Your task to perform on an android device: When is my next meeting? Image 0: 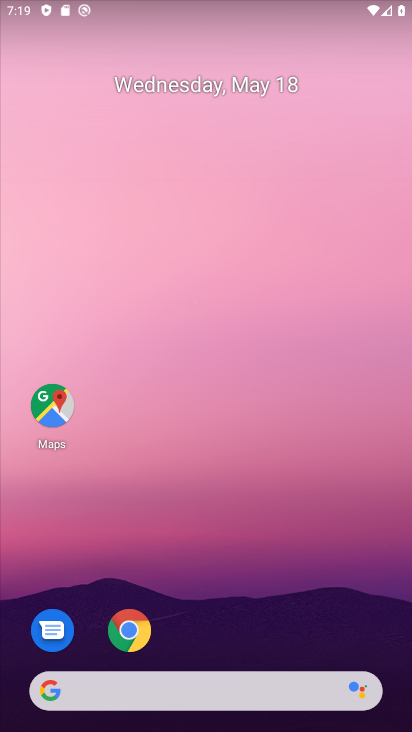
Step 0: drag from (277, 566) to (153, 77)
Your task to perform on an android device: When is my next meeting? Image 1: 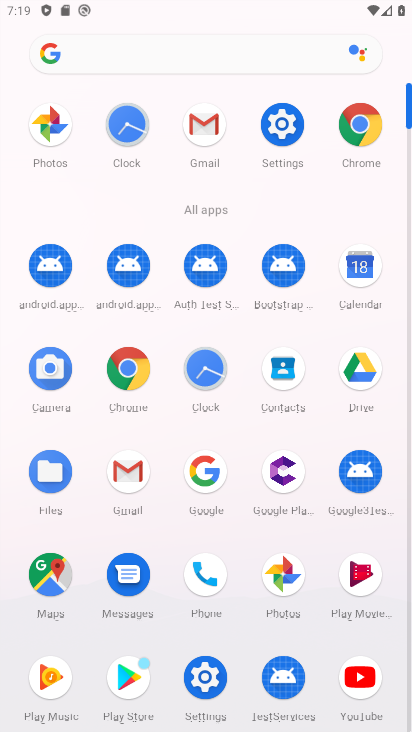
Step 1: click (358, 270)
Your task to perform on an android device: When is my next meeting? Image 2: 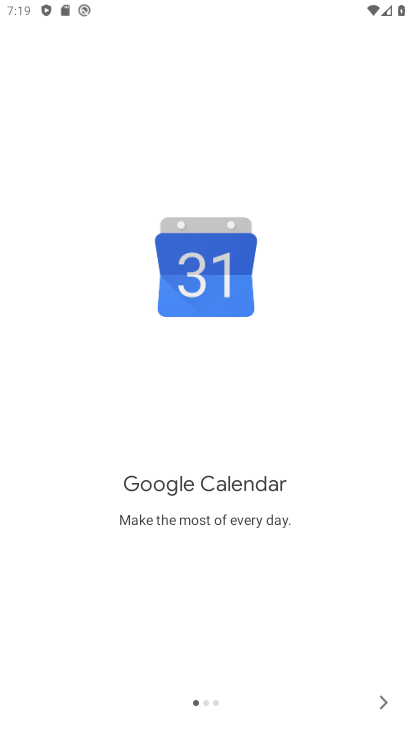
Step 2: click (384, 701)
Your task to perform on an android device: When is my next meeting? Image 3: 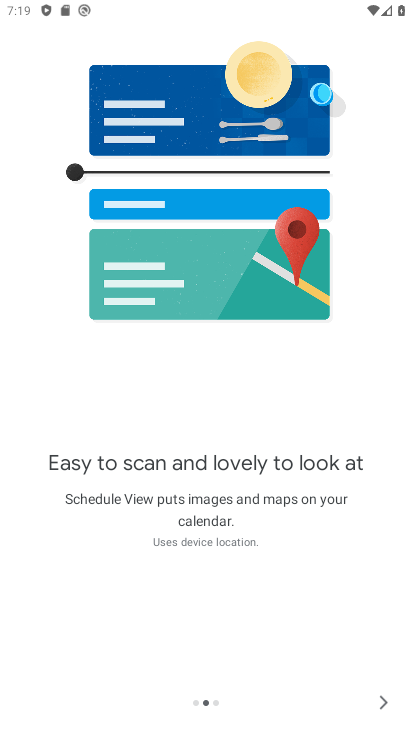
Step 3: click (384, 701)
Your task to perform on an android device: When is my next meeting? Image 4: 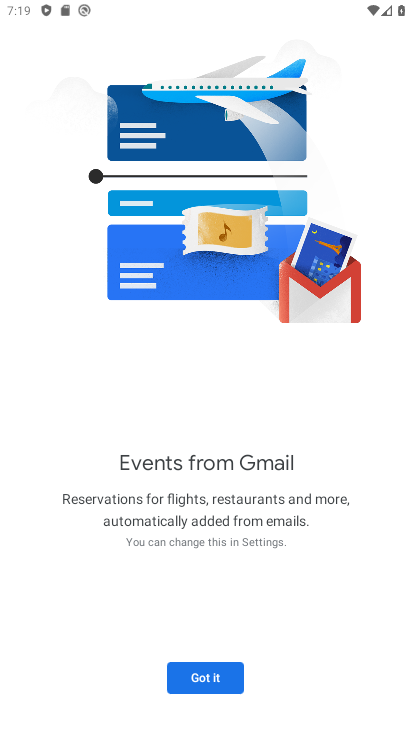
Step 4: click (199, 678)
Your task to perform on an android device: When is my next meeting? Image 5: 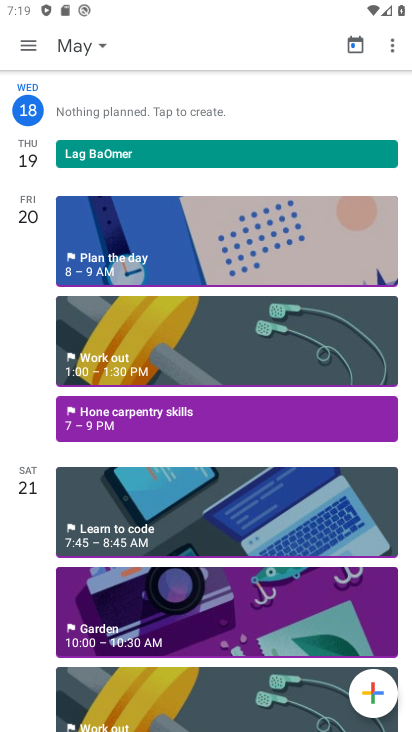
Step 5: task complete